Your task to perform on an android device: turn off location history Image 0: 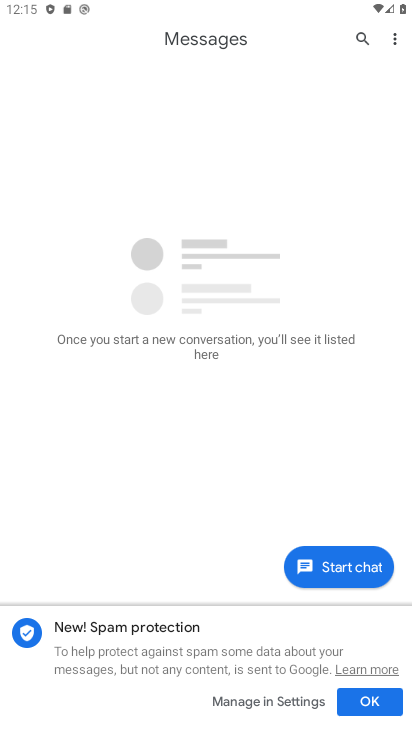
Step 0: press home button
Your task to perform on an android device: turn off location history Image 1: 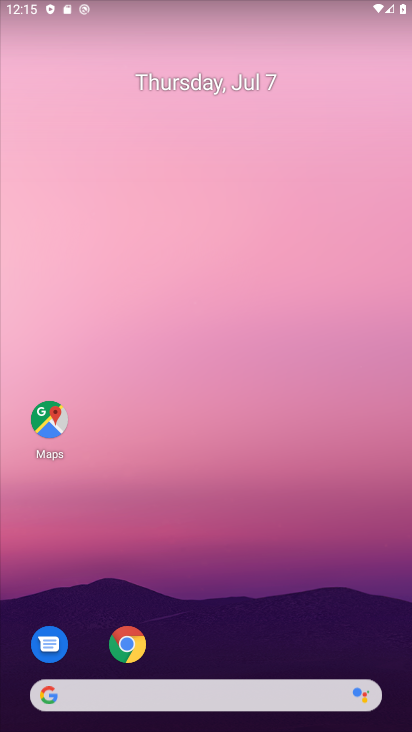
Step 1: drag from (273, 604) to (252, 81)
Your task to perform on an android device: turn off location history Image 2: 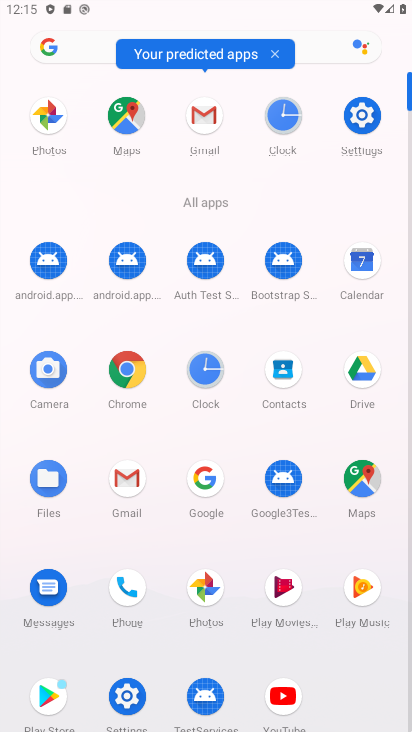
Step 2: click (366, 466)
Your task to perform on an android device: turn off location history Image 3: 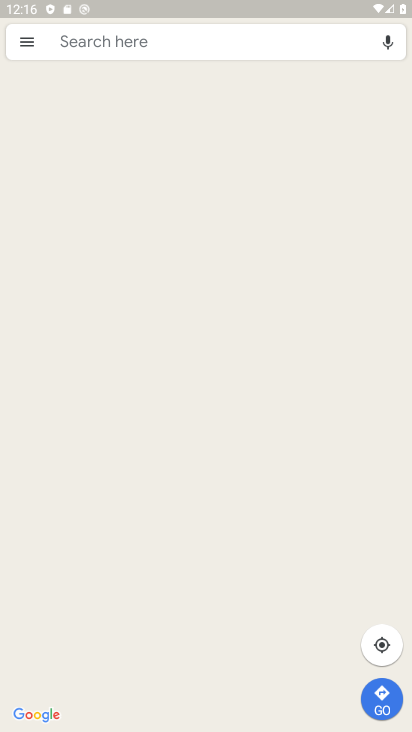
Step 3: click (86, 40)
Your task to perform on an android device: turn off location history Image 4: 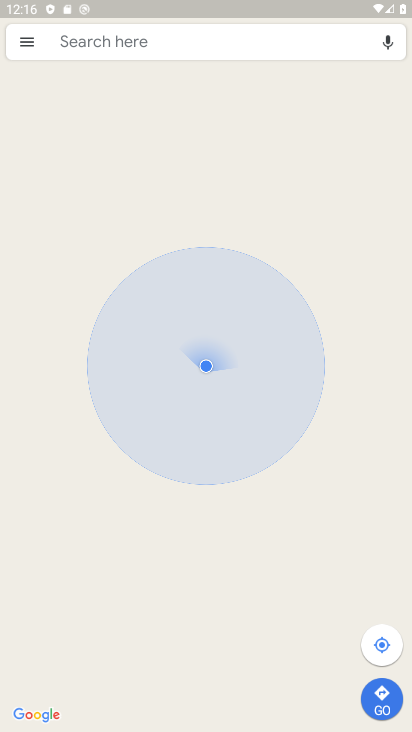
Step 4: click (21, 40)
Your task to perform on an android device: turn off location history Image 5: 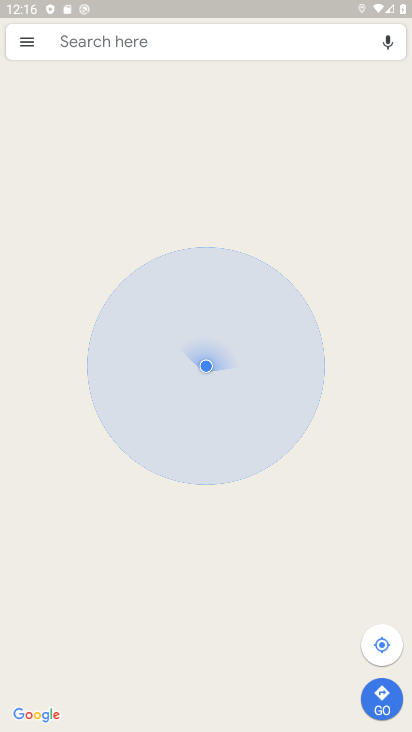
Step 5: click (23, 48)
Your task to perform on an android device: turn off location history Image 6: 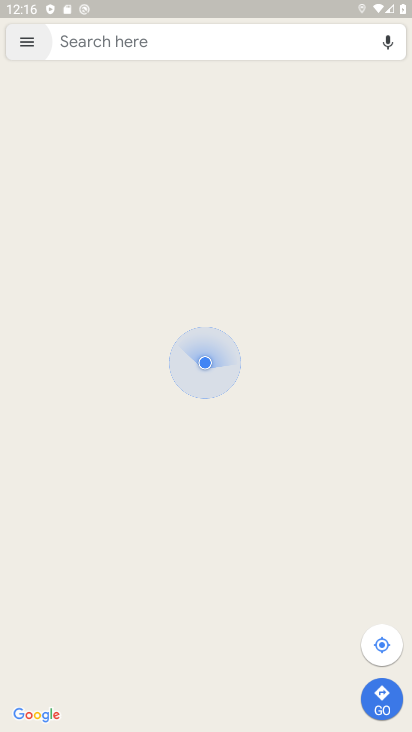
Step 6: click (30, 36)
Your task to perform on an android device: turn off location history Image 7: 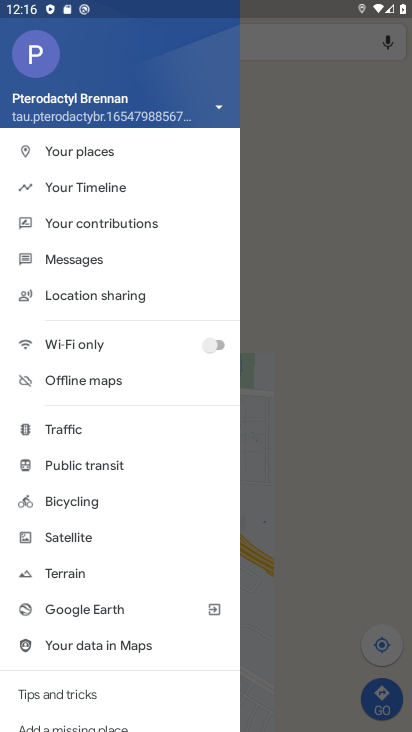
Step 7: click (97, 187)
Your task to perform on an android device: turn off location history Image 8: 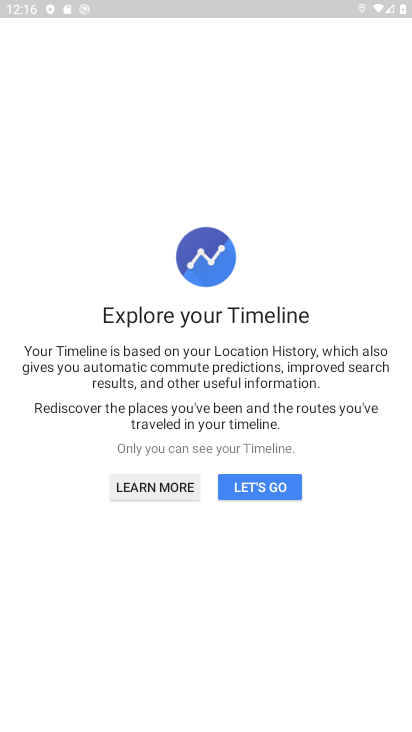
Step 8: click (257, 487)
Your task to perform on an android device: turn off location history Image 9: 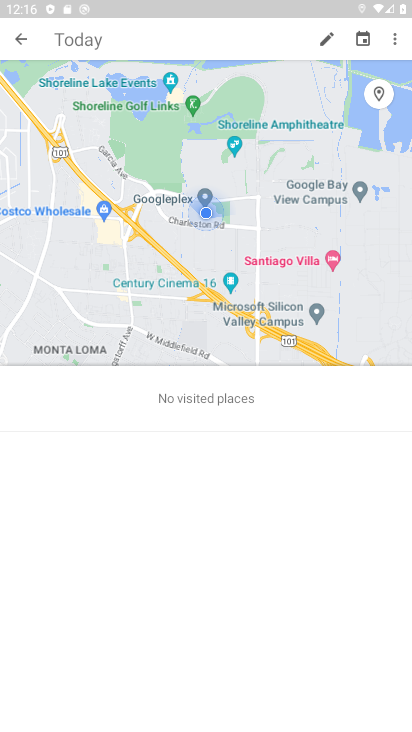
Step 9: click (392, 43)
Your task to perform on an android device: turn off location history Image 10: 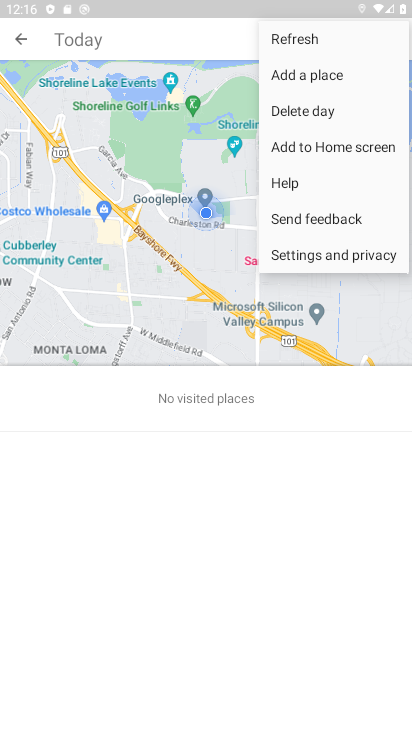
Step 10: click (329, 255)
Your task to perform on an android device: turn off location history Image 11: 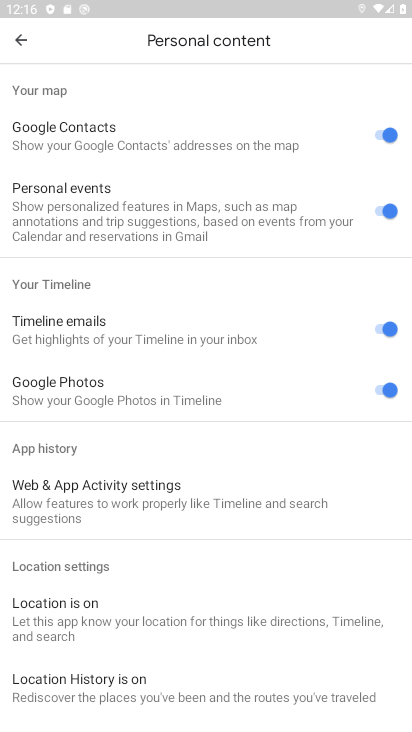
Step 11: click (94, 687)
Your task to perform on an android device: turn off location history Image 12: 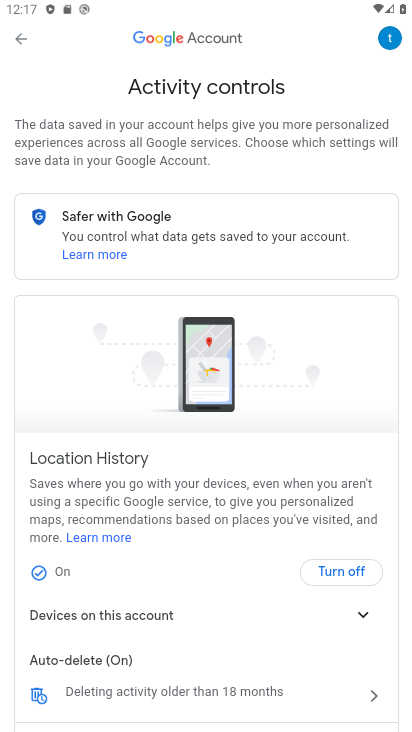
Step 12: click (351, 568)
Your task to perform on an android device: turn off location history Image 13: 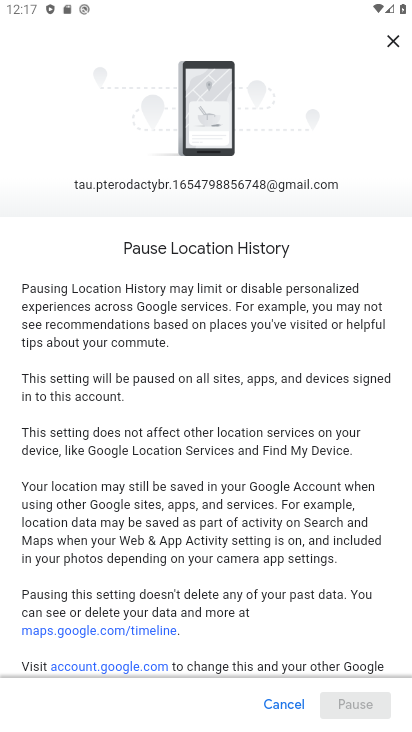
Step 13: drag from (257, 649) to (257, 198)
Your task to perform on an android device: turn off location history Image 14: 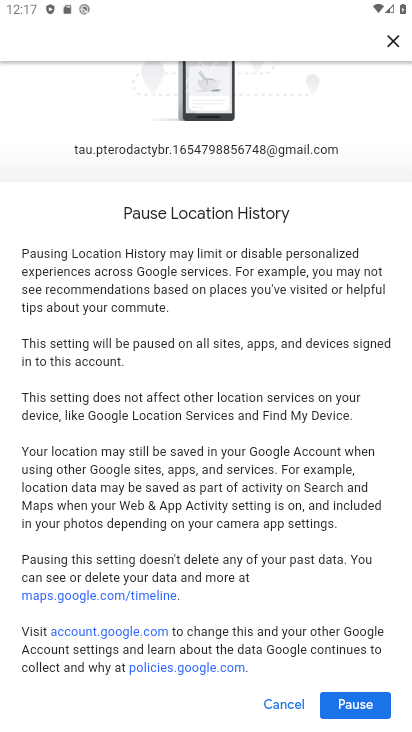
Step 14: click (347, 696)
Your task to perform on an android device: turn off location history Image 15: 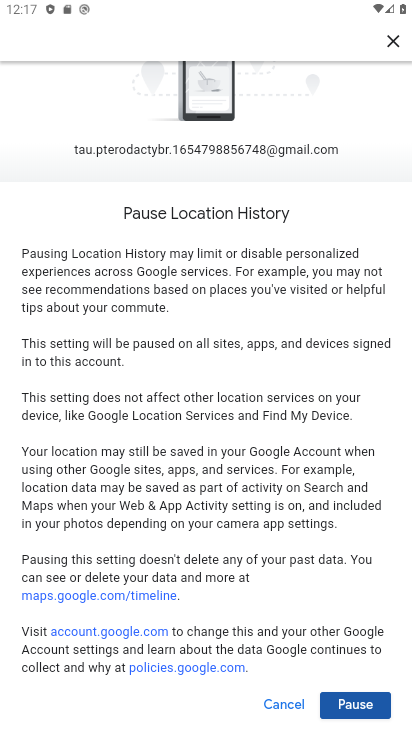
Step 15: click (359, 704)
Your task to perform on an android device: turn off location history Image 16: 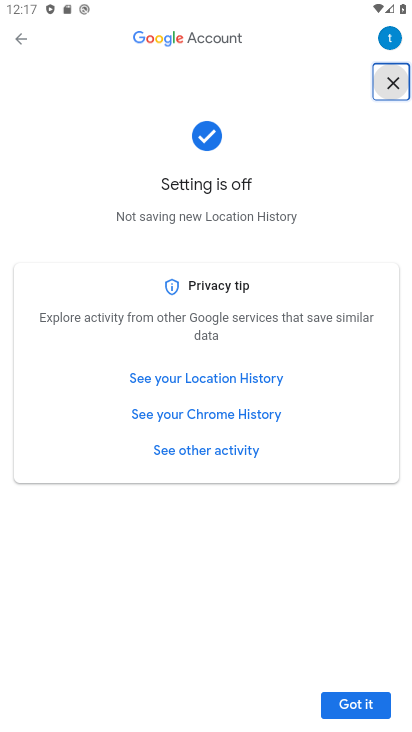
Step 16: click (353, 698)
Your task to perform on an android device: turn off location history Image 17: 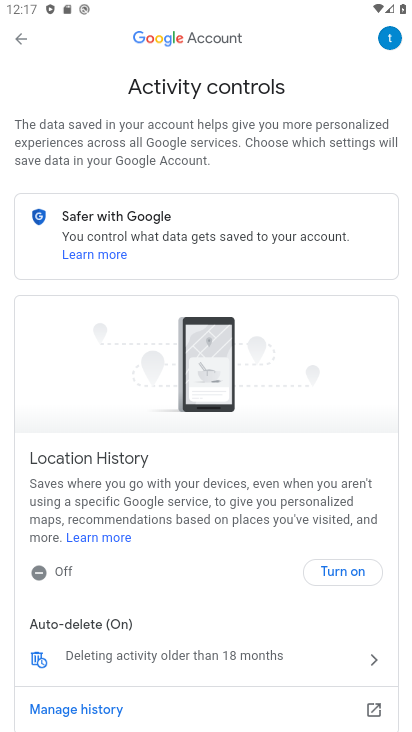
Step 17: task complete